Your task to perform on an android device: Do I have any events tomorrow? Image 0: 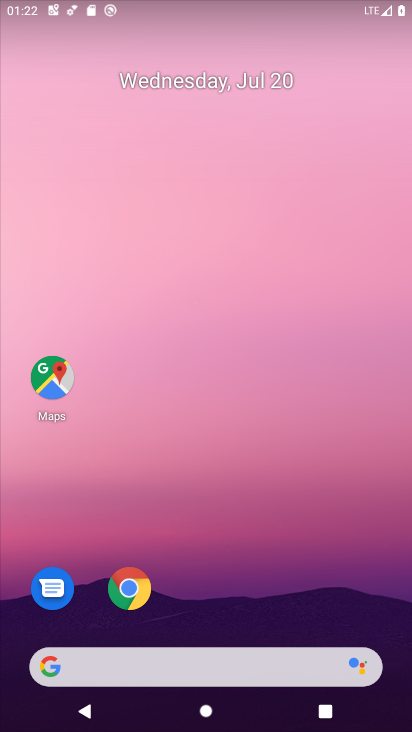
Step 0: drag from (158, 631) to (225, 267)
Your task to perform on an android device: Do I have any events tomorrow? Image 1: 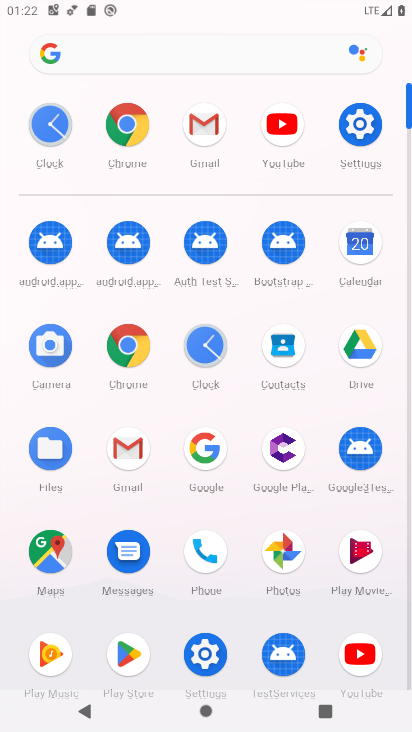
Step 1: click (356, 233)
Your task to perform on an android device: Do I have any events tomorrow? Image 2: 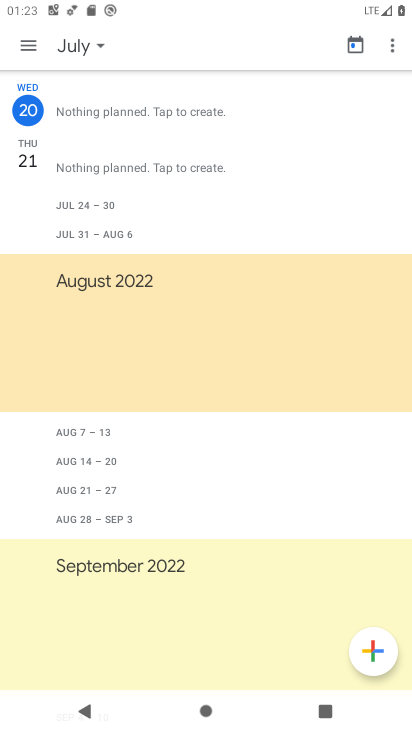
Step 2: click (24, 46)
Your task to perform on an android device: Do I have any events tomorrow? Image 3: 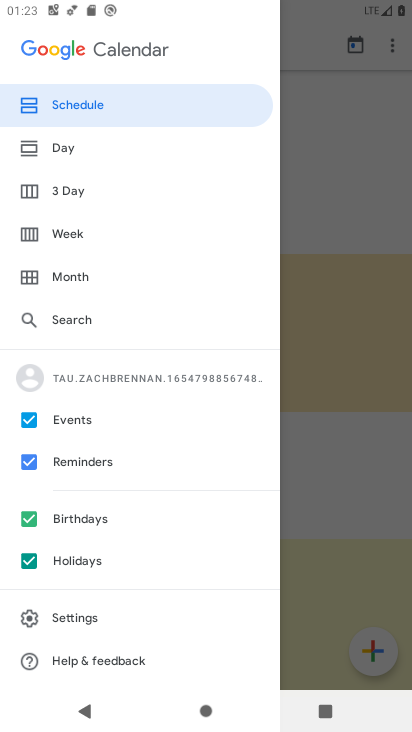
Step 3: click (84, 270)
Your task to perform on an android device: Do I have any events tomorrow? Image 4: 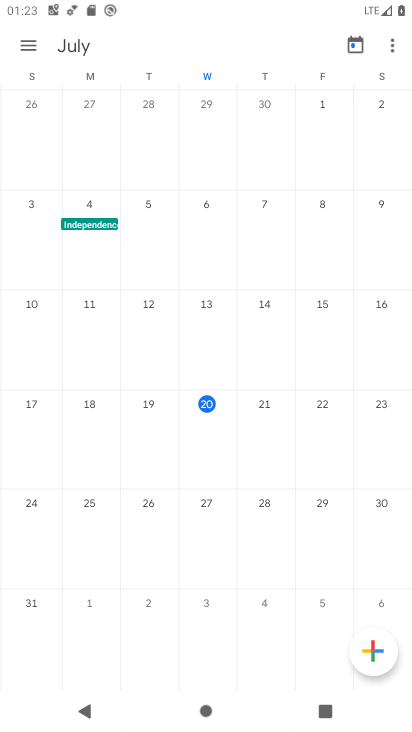
Step 4: click (257, 405)
Your task to perform on an android device: Do I have any events tomorrow? Image 5: 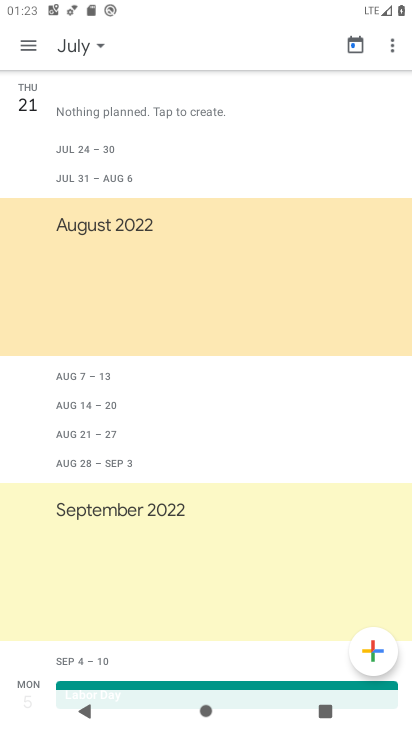
Step 5: task complete